Your task to perform on an android device: Empty the shopping cart on bestbuy.com. Add "usb-b" to the cart on bestbuy.com Image 0: 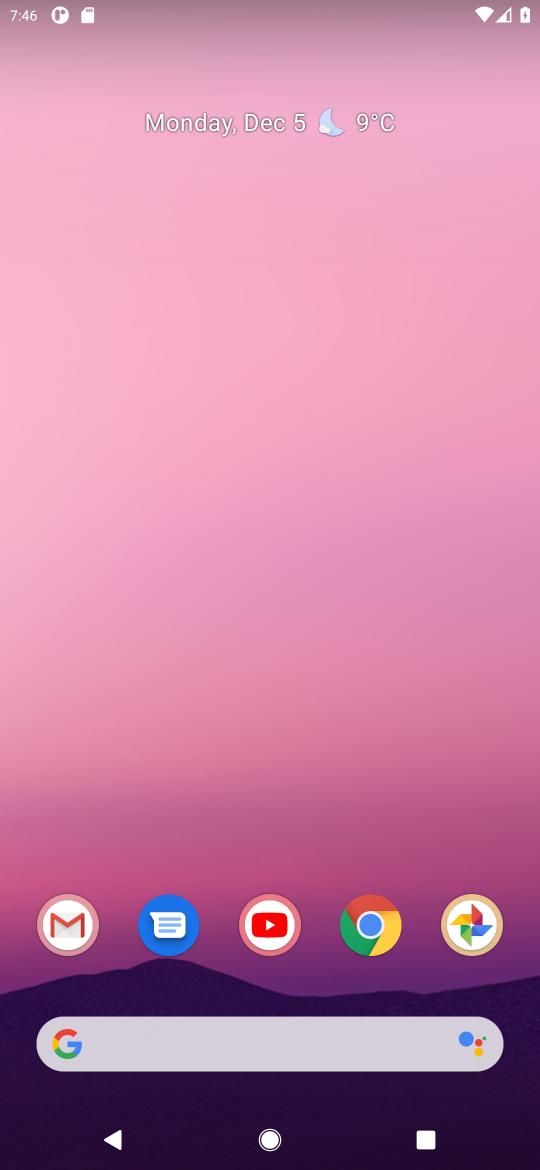
Step 0: click (371, 934)
Your task to perform on an android device: Empty the shopping cart on bestbuy.com. Add "usb-b" to the cart on bestbuy.com Image 1: 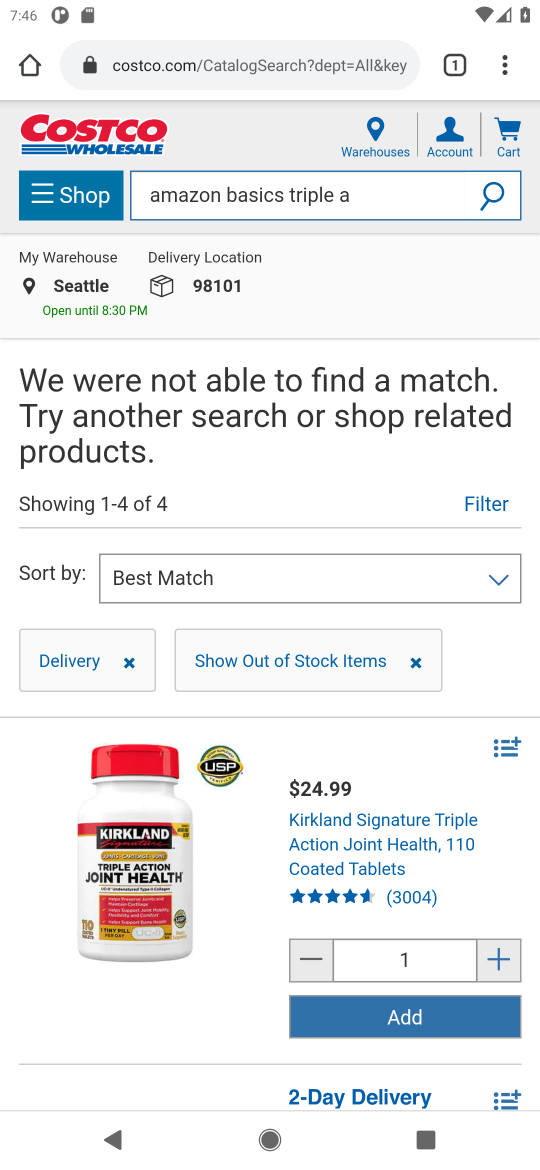
Step 1: click (216, 74)
Your task to perform on an android device: Empty the shopping cart on bestbuy.com. Add "usb-b" to the cart on bestbuy.com Image 2: 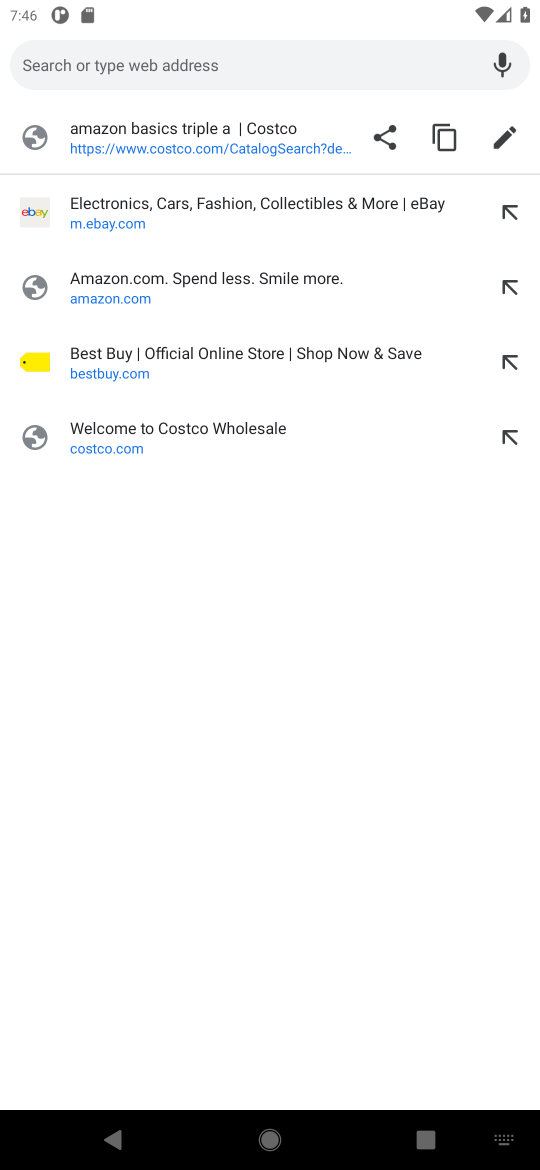
Step 2: click (105, 363)
Your task to perform on an android device: Empty the shopping cart on bestbuy.com. Add "usb-b" to the cart on bestbuy.com Image 3: 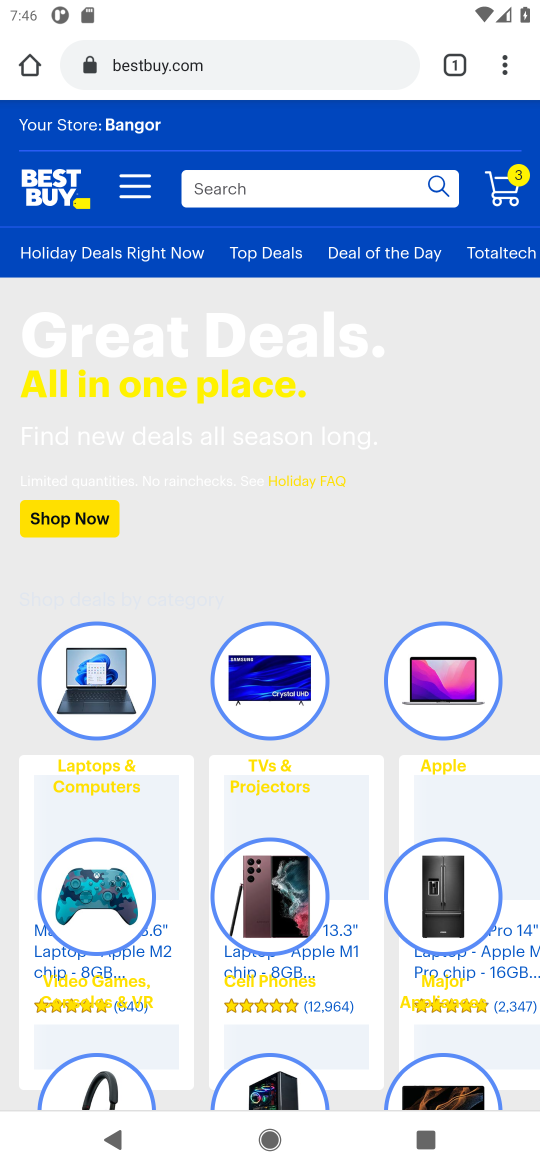
Step 3: click (515, 194)
Your task to perform on an android device: Empty the shopping cart on bestbuy.com. Add "usb-b" to the cart on bestbuy.com Image 4: 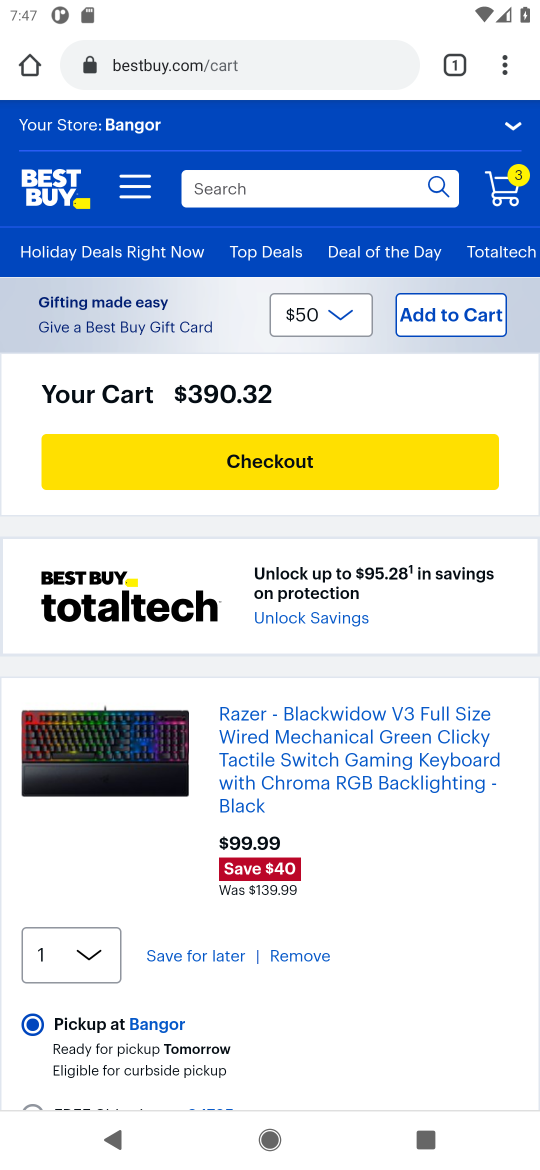
Step 4: drag from (242, 761) to (242, 361)
Your task to perform on an android device: Empty the shopping cart on bestbuy.com. Add "usb-b" to the cart on bestbuy.com Image 5: 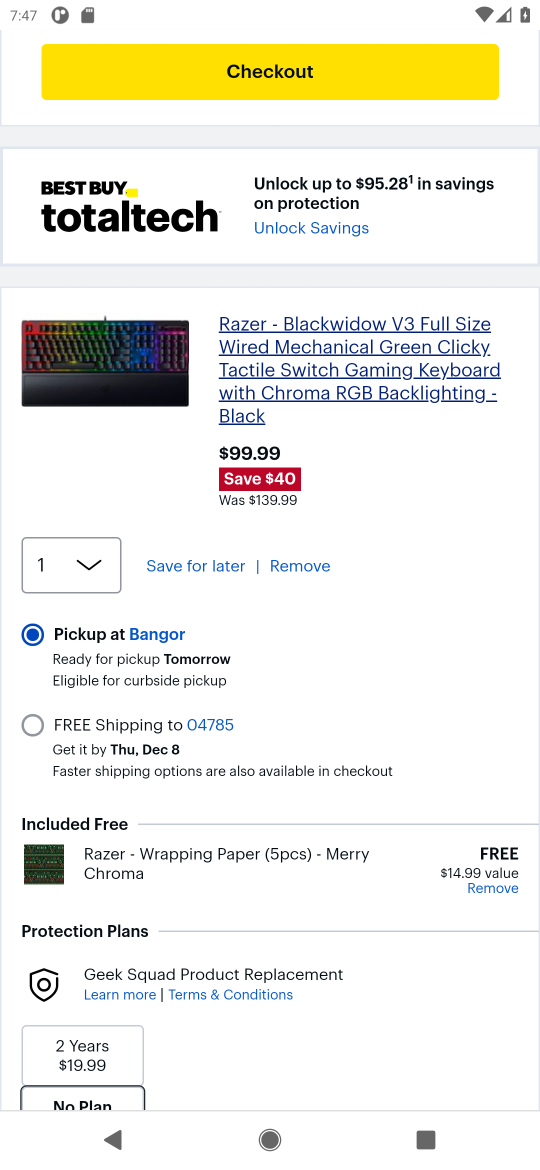
Step 5: click (295, 563)
Your task to perform on an android device: Empty the shopping cart on bestbuy.com. Add "usb-b" to the cart on bestbuy.com Image 6: 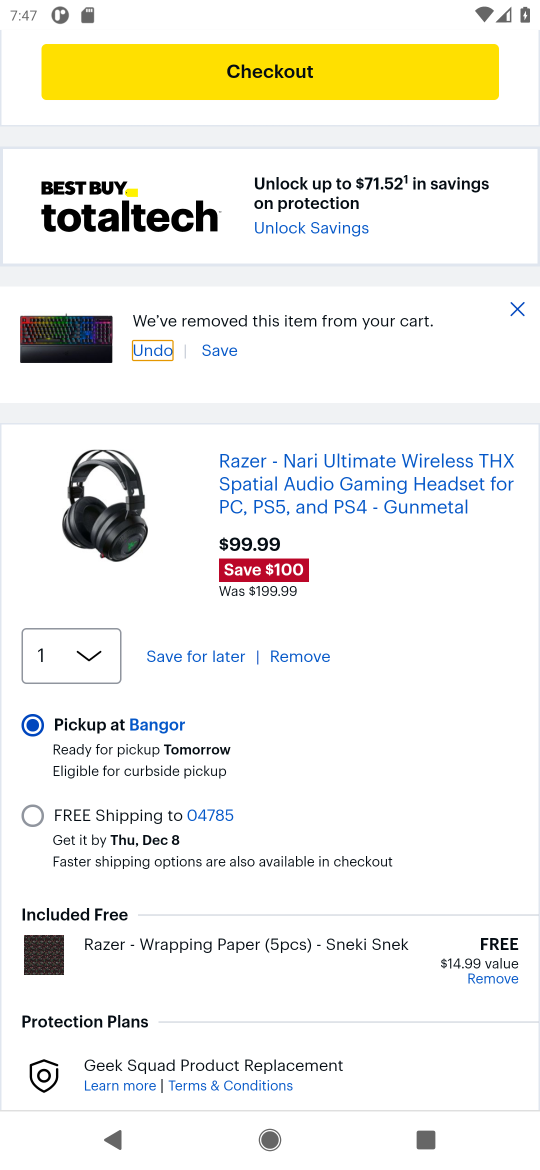
Step 6: click (287, 654)
Your task to perform on an android device: Empty the shopping cart on bestbuy.com. Add "usb-b" to the cart on bestbuy.com Image 7: 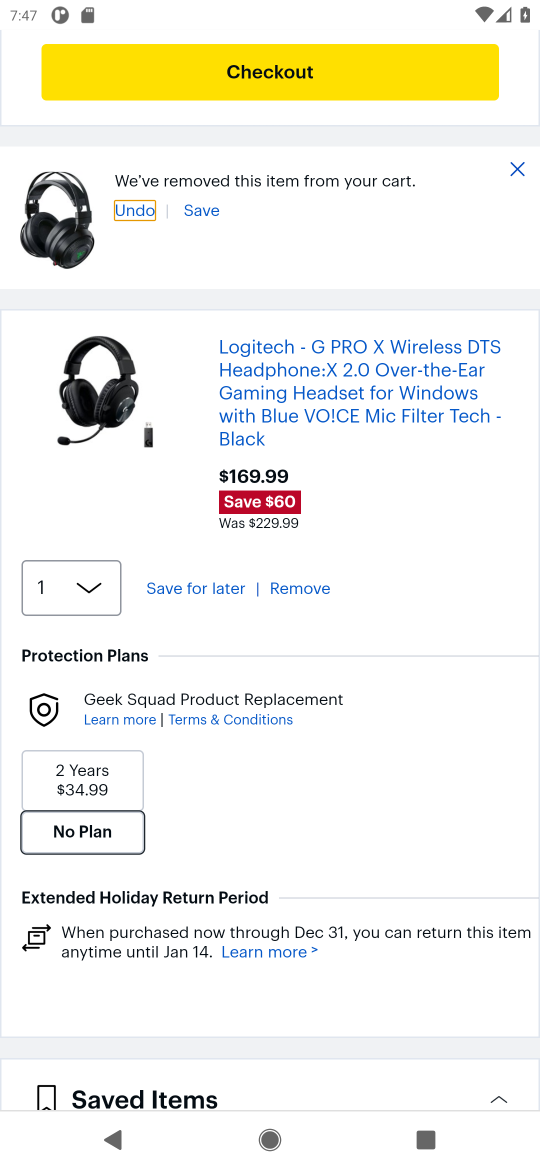
Step 7: click (292, 585)
Your task to perform on an android device: Empty the shopping cart on bestbuy.com. Add "usb-b" to the cart on bestbuy.com Image 8: 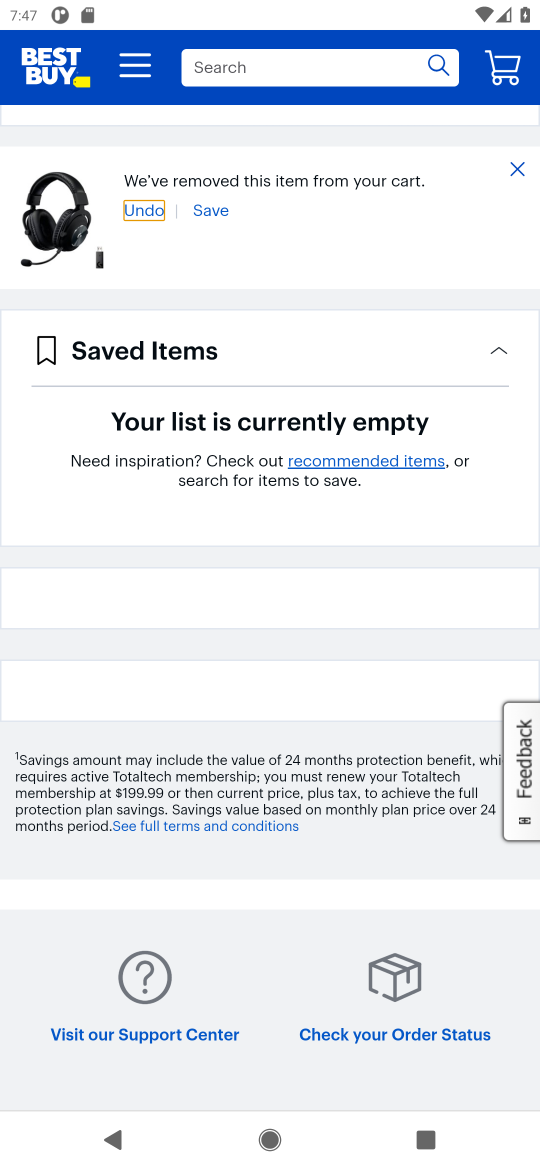
Step 8: drag from (293, 596) to (285, 785)
Your task to perform on an android device: Empty the shopping cart on bestbuy.com. Add "usb-b" to the cart on bestbuy.com Image 9: 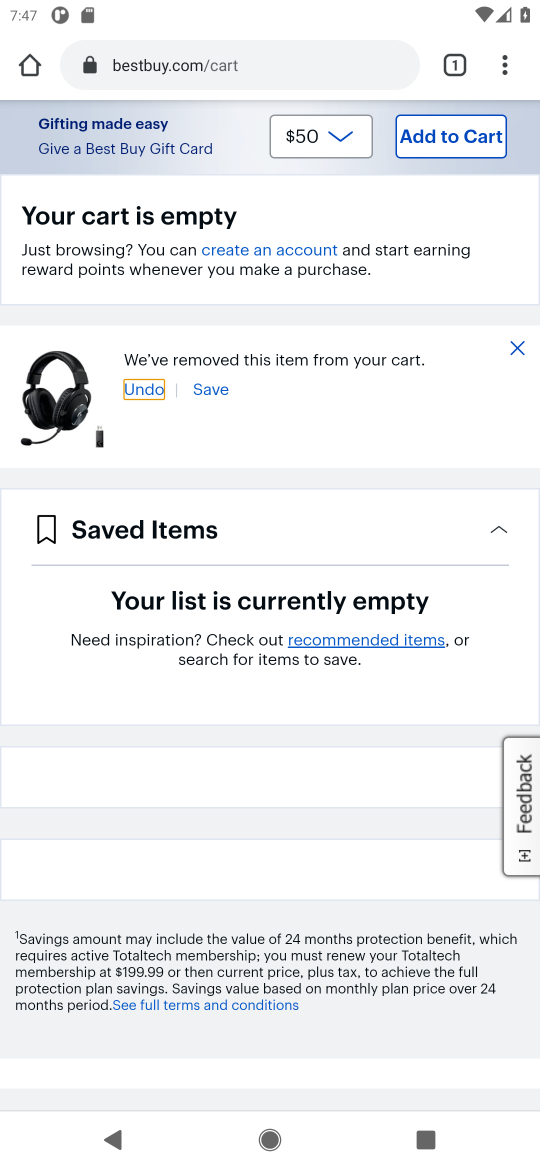
Step 9: drag from (408, 288) to (409, 572)
Your task to perform on an android device: Empty the shopping cart on bestbuy.com. Add "usb-b" to the cart on bestbuy.com Image 10: 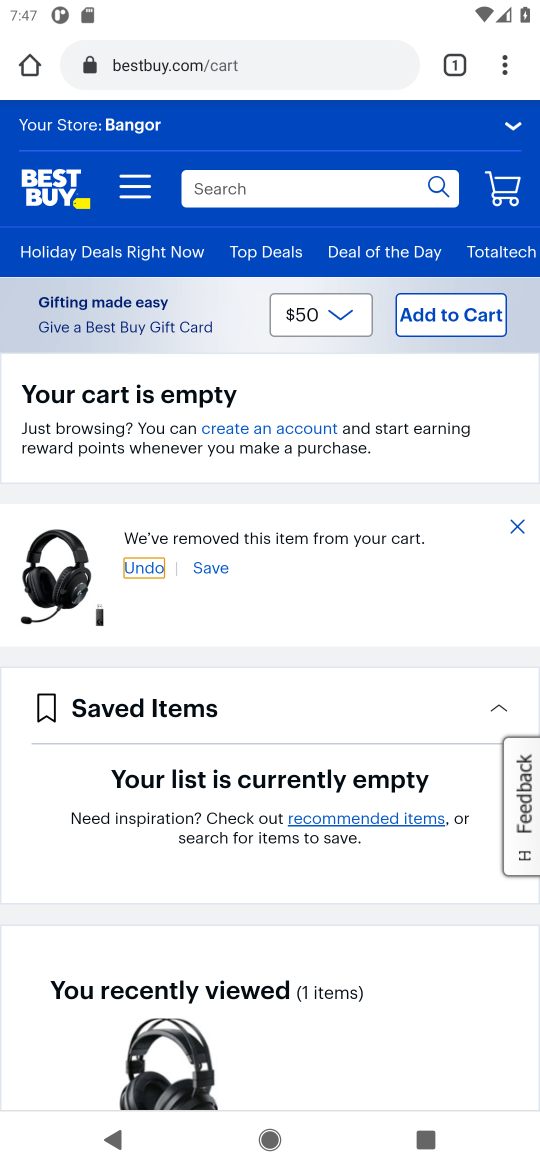
Step 10: click (225, 200)
Your task to perform on an android device: Empty the shopping cart on bestbuy.com. Add "usb-b" to the cart on bestbuy.com Image 11: 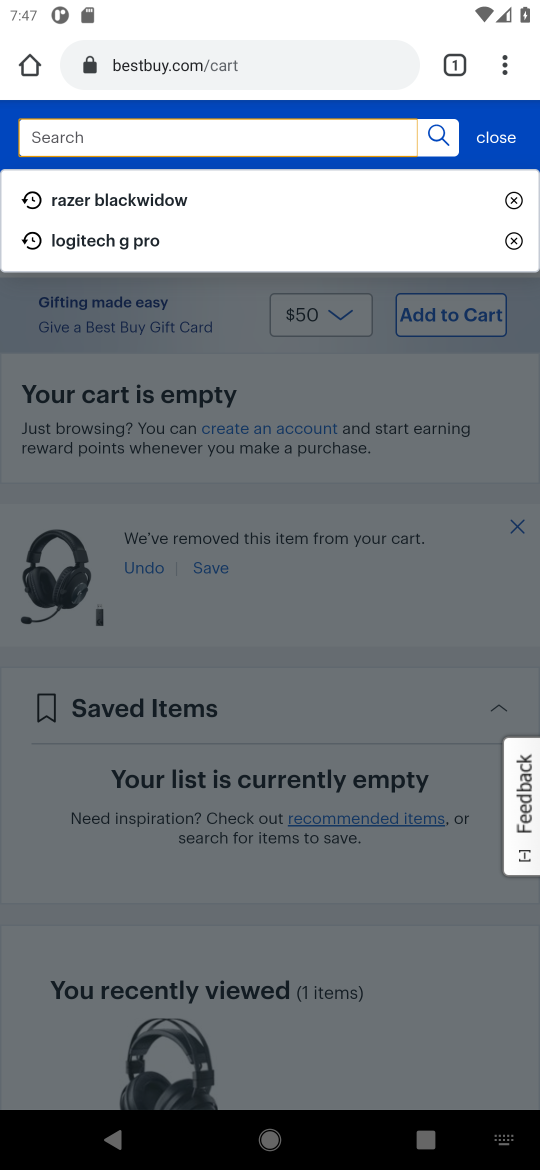
Step 11: type "usb-b"
Your task to perform on an android device: Empty the shopping cart on bestbuy.com. Add "usb-b" to the cart on bestbuy.com Image 12: 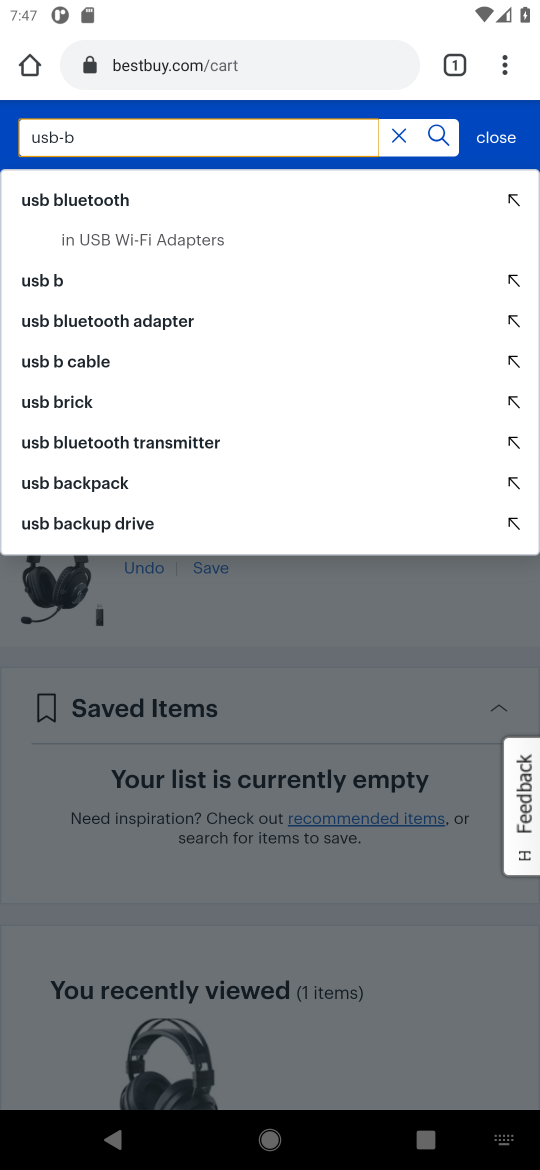
Step 12: click (441, 134)
Your task to perform on an android device: Empty the shopping cart on bestbuy.com. Add "usb-b" to the cart on bestbuy.com Image 13: 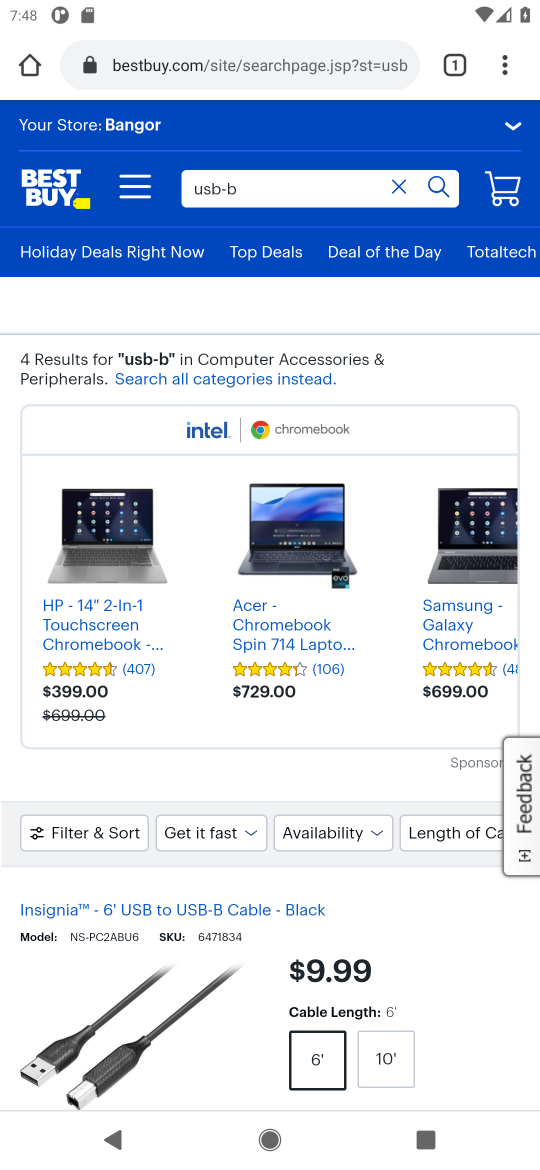
Step 13: drag from (186, 681) to (175, 241)
Your task to perform on an android device: Empty the shopping cart on bestbuy.com. Add "usb-b" to the cart on bestbuy.com Image 14: 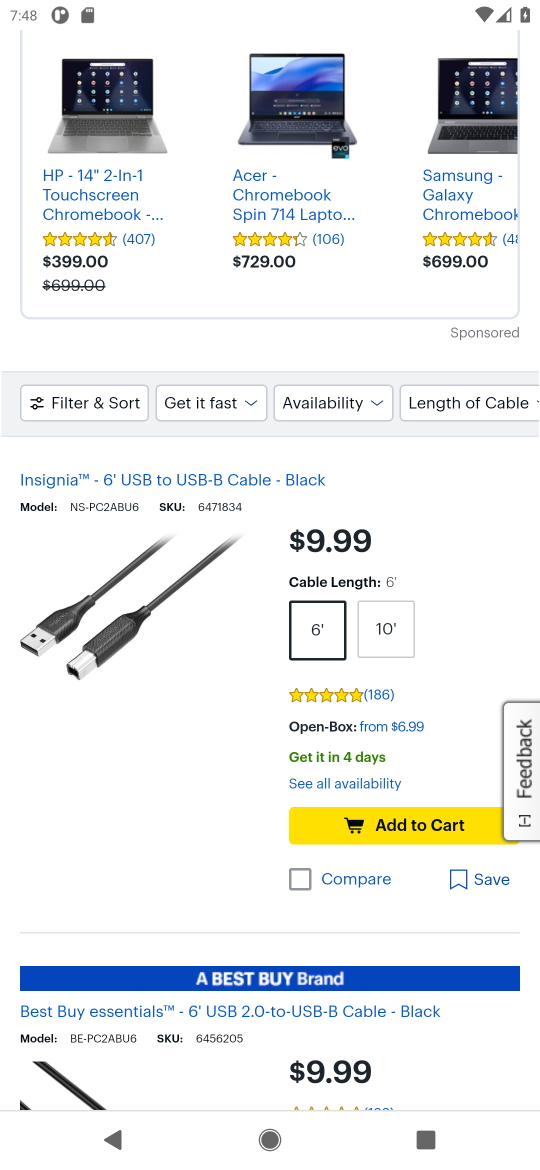
Step 14: drag from (211, 782) to (252, 191)
Your task to perform on an android device: Empty the shopping cart on bestbuy.com. Add "usb-b" to the cart on bestbuy.com Image 15: 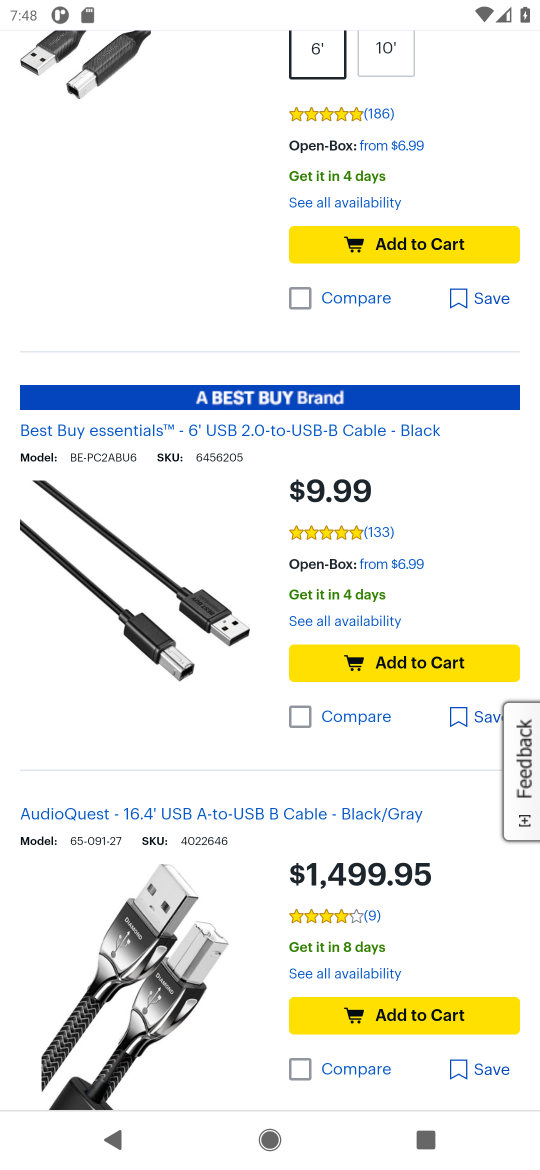
Step 15: drag from (157, 557) to (122, 956)
Your task to perform on an android device: Empty the shopping cart on bestbuy.com. Add "usb-b" to the cart on bestbuy.com Image 16: 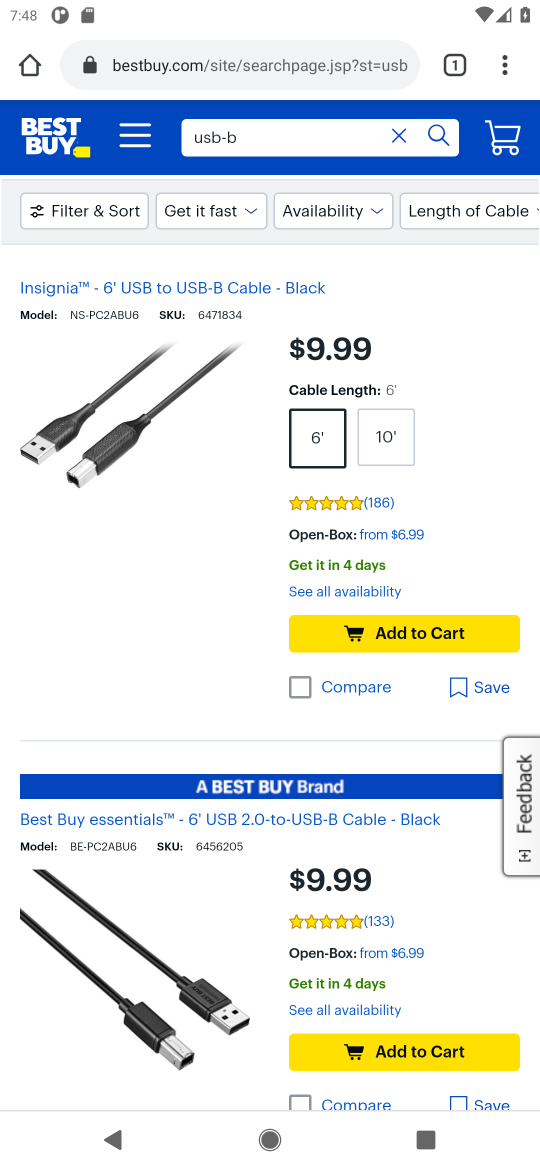
Step 16: click (346, 630)
Your task to perform on an android device: Empty the shopping cart on bestbuy.com. Add "usb-b" to the cart on bestbuy.com Image 17: 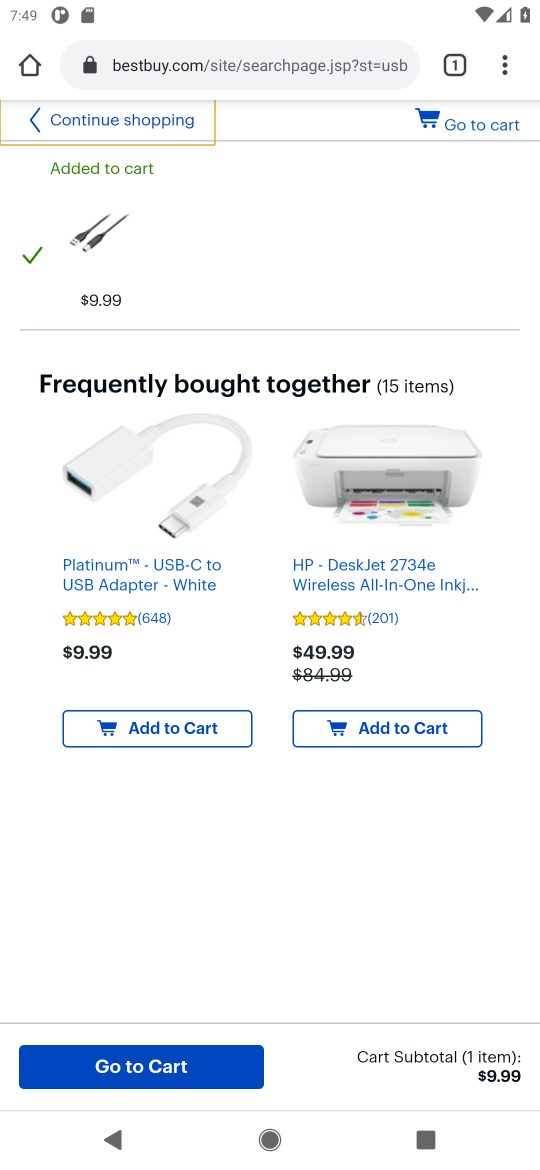
Step 17: task complete